Your task to perform on an android device: move an email to a new category in the gmail app Image 0: 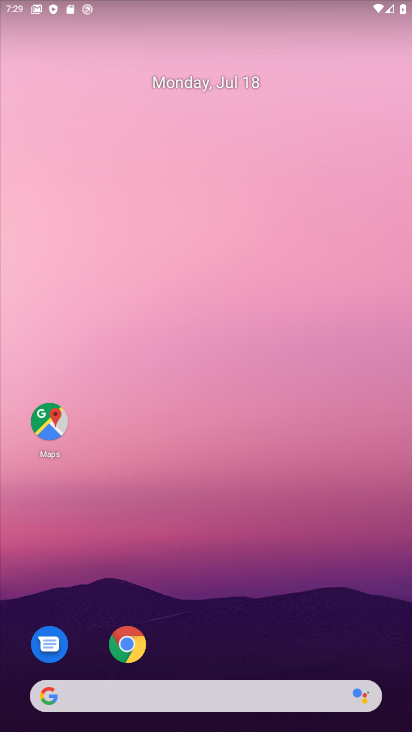
Step 0: drag from (229, 703) to (377, 304)
Your task to perform on an android device: move an email to a new category in the gmail app Image 1: 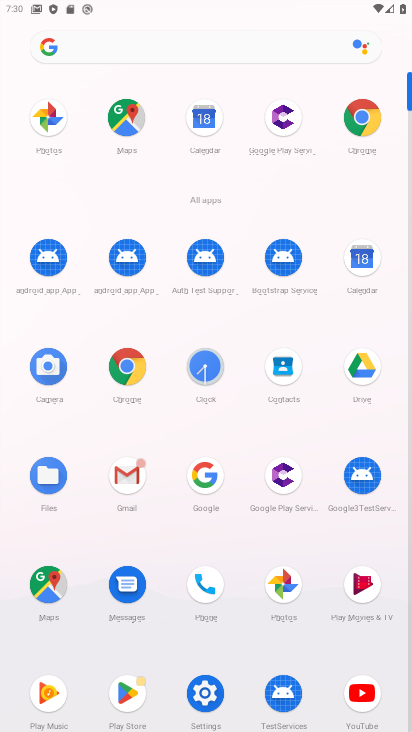
Step 1: drag from (290, 414) to (390, 282)
Your task to perform on an android device: move an email to a new category in the gmail app Image 2: 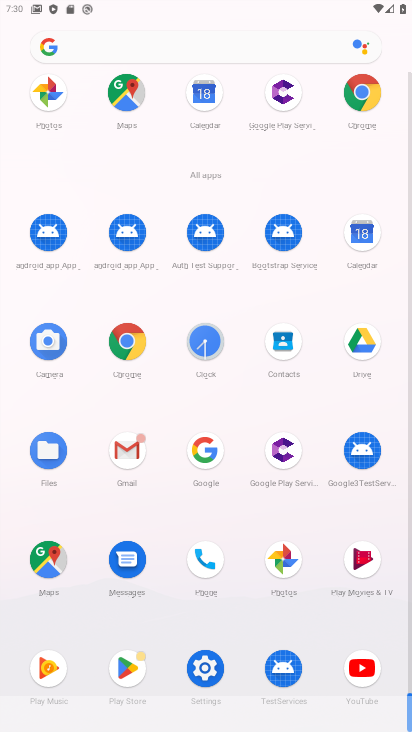
Step 2: click (125, 454)
Your task to perform on an android device: move an email to a new category in the gmail app Image 3: 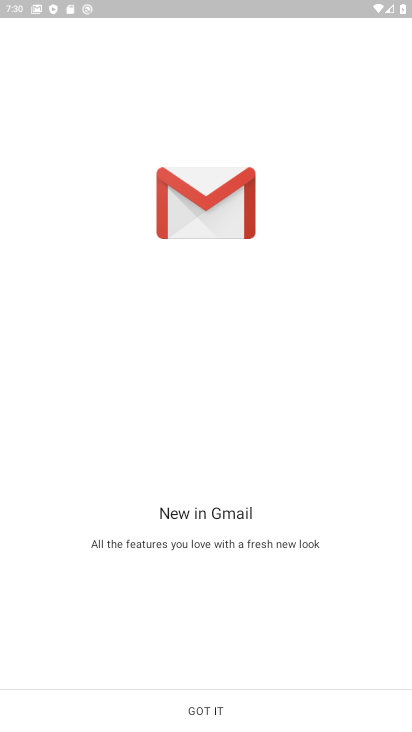
Step 3: click (190, 713)
Your task to perform on an android device: move an email to a new category in the gmail app Image 4: 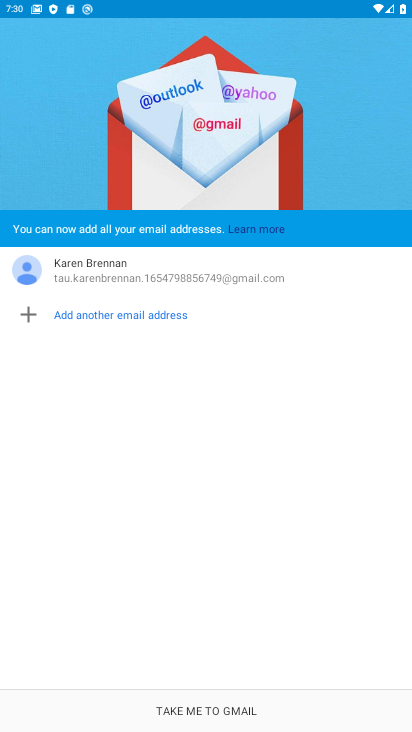
Step 4: click (190, 714)
Your task to perform on an android device: move an email to a new category in the gmail app Image 5: 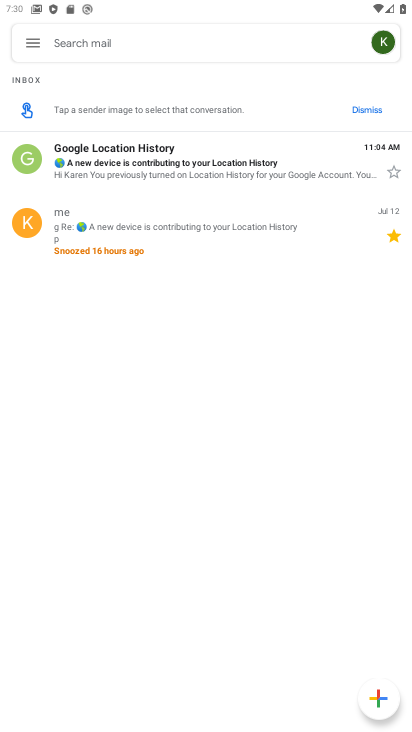
Step 5: click (45, 37)
Your task to perform on an android device: move an email to a new category in the gmail app Image 6: 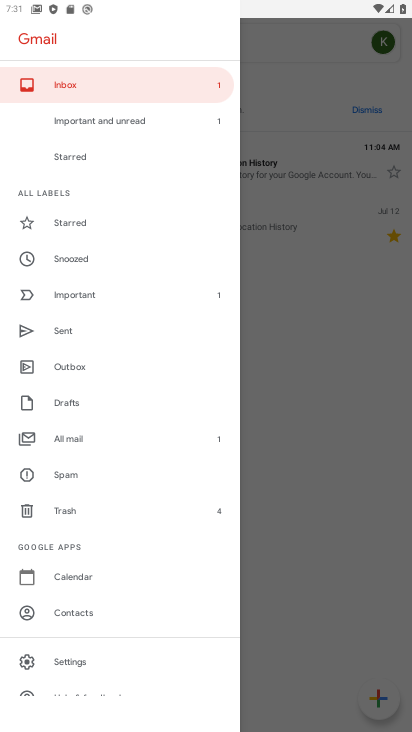
Step 6: click (81, 511)
Your task to perform on an android device: move an email to a new category in the gmail app Image 7: 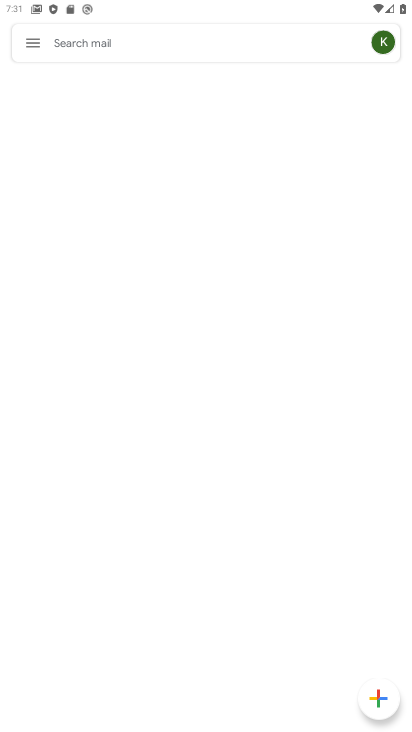
Step 7: click (70, 510)
Your task to perform on an android device: move an email to a new category in the gmail app Image 8: 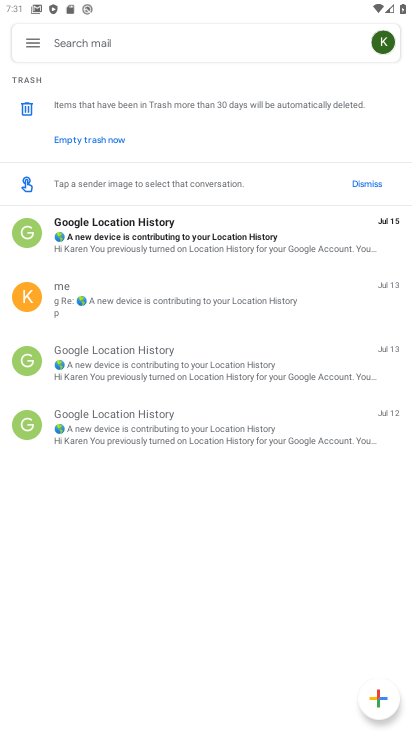
Step 8: click (27, 234)
Your task to perform on an android device: move an email to a new category in the gmail app Image 9: 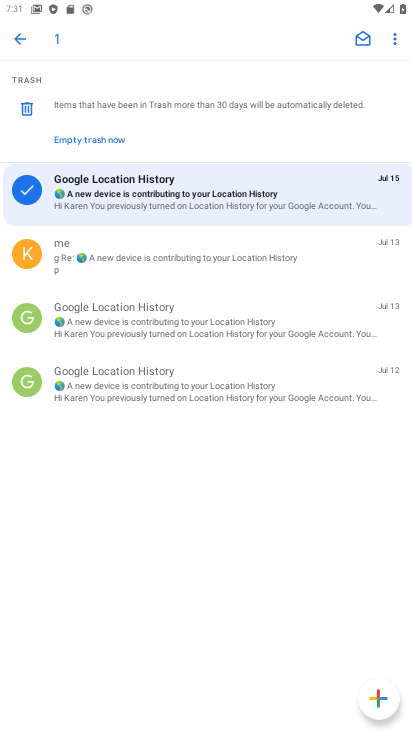
Step 9: click (393, 32)
Your task to perform on an android device: move an email to a new category in the gmail app Image 10: 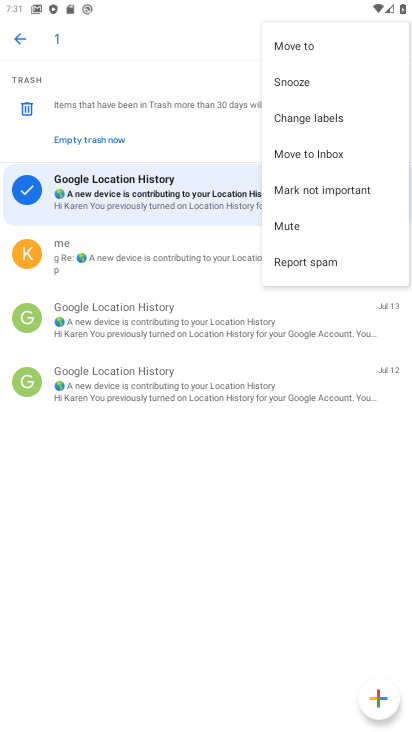
Step 10: click (296, 50)
Your task to perform on an android device: move an email to a new category in the gmail app Image 11: 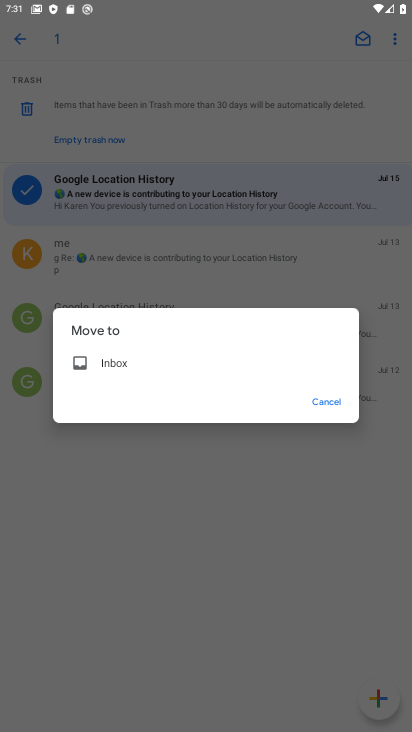
Step 11: click (328, 402)
Your task to perform on an android device: move an email to a new category in the gmail app Image 12: 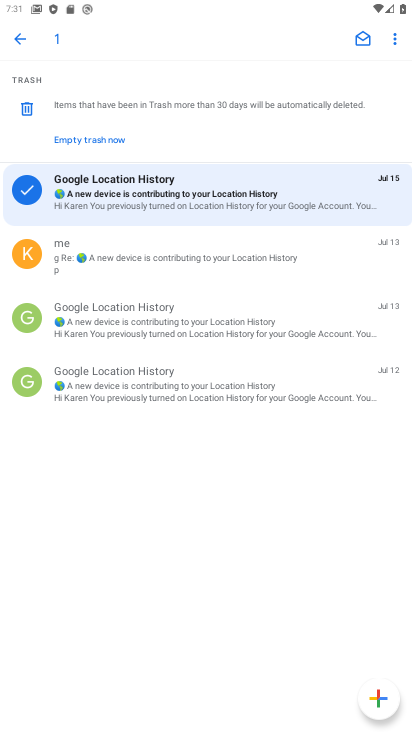
Step 12: click (397, 41)
Your task to perform on an android device: move an email to a new category in the gmail app Image 13: 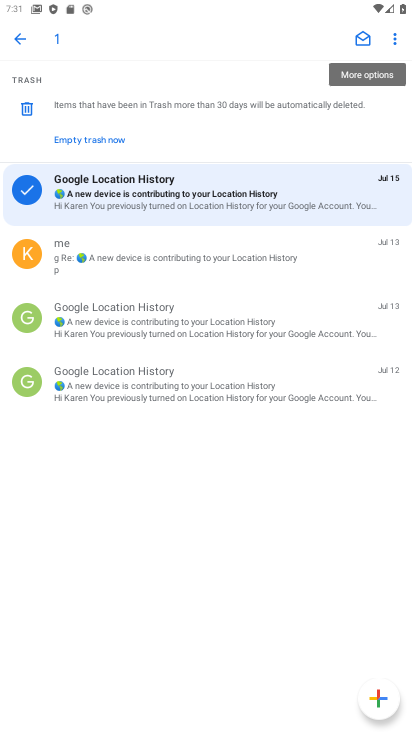
Step 13: click (391, 45)
Your task to perform on an android device: move an email to a new category in the gmail app Image 14: 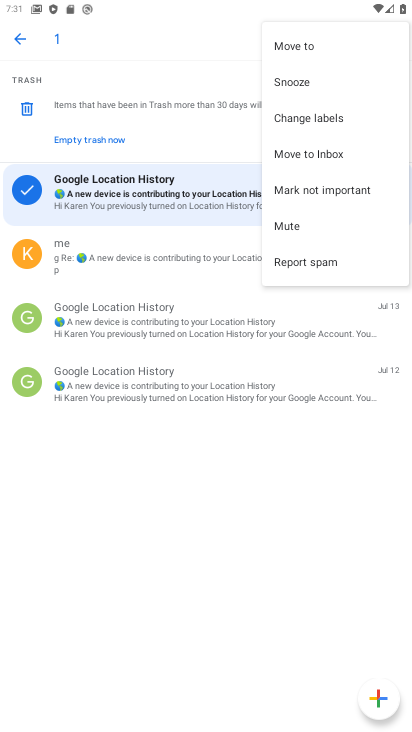
Step 14: click (285, 43)
Your task to perform on an android device: move an email to a new category in the gmail app Image 15: 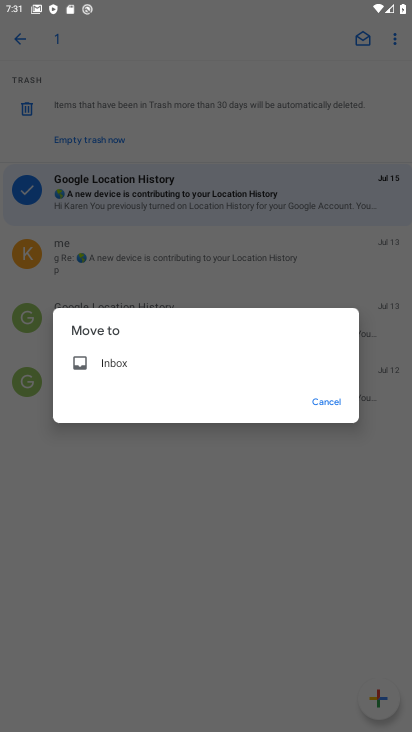
Step 15: click (105, 365)
Your task to perform on an android device: move an email to a new category in the gmail app Image 16: 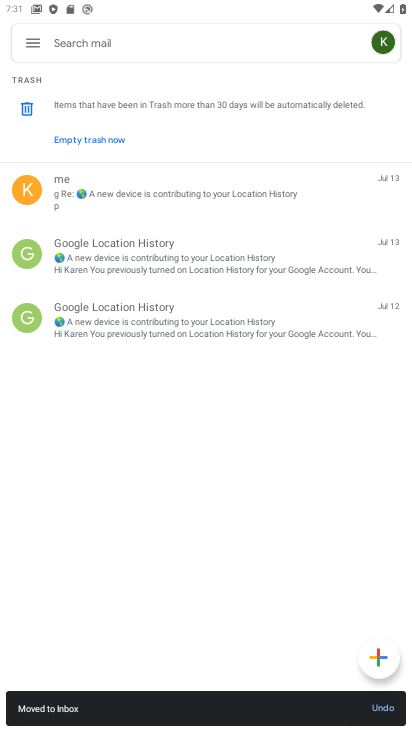
Step 16: task complete